Your task to perform on an android device: Play the last video I watched on Youtube Image 0: 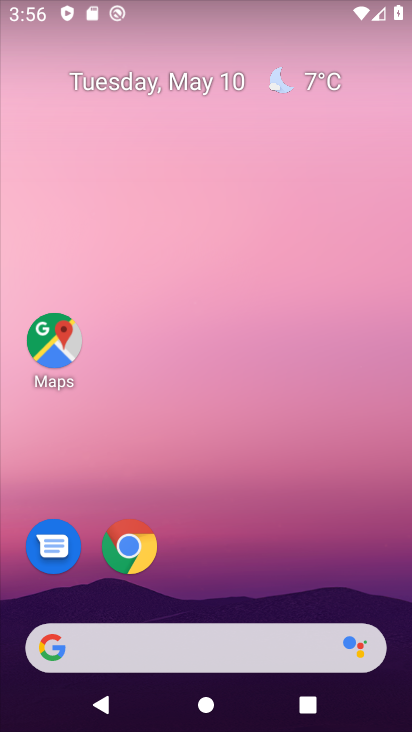
Step 0: drag from (326, 576) to (152, 77)
Your task to perform on an android device: Play the last video I watched on Youtube Image 1: 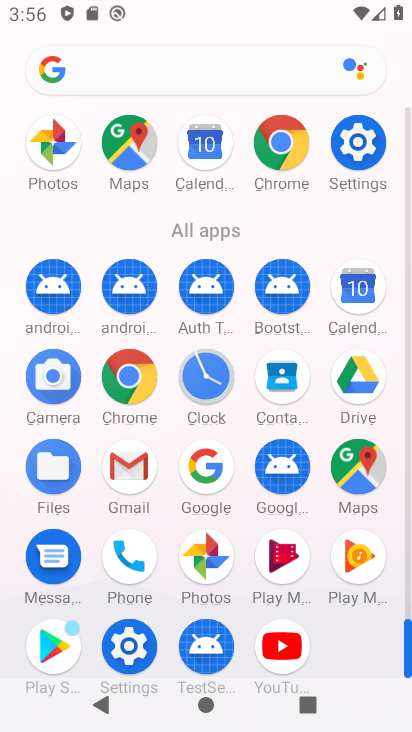
Step 1: click (286, 646)
Your task to perform on an android device: Play the last video I watched on Youtube Image 2: 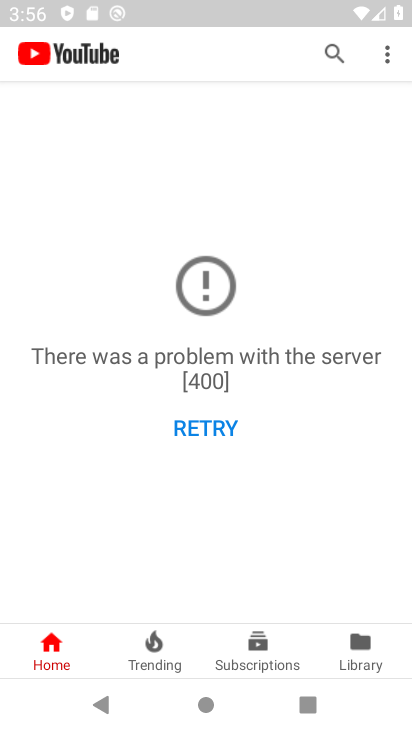
Step 2: task complete